Your task to perform on an android device: install app "Adobe Acrobat Reader" Image 0: 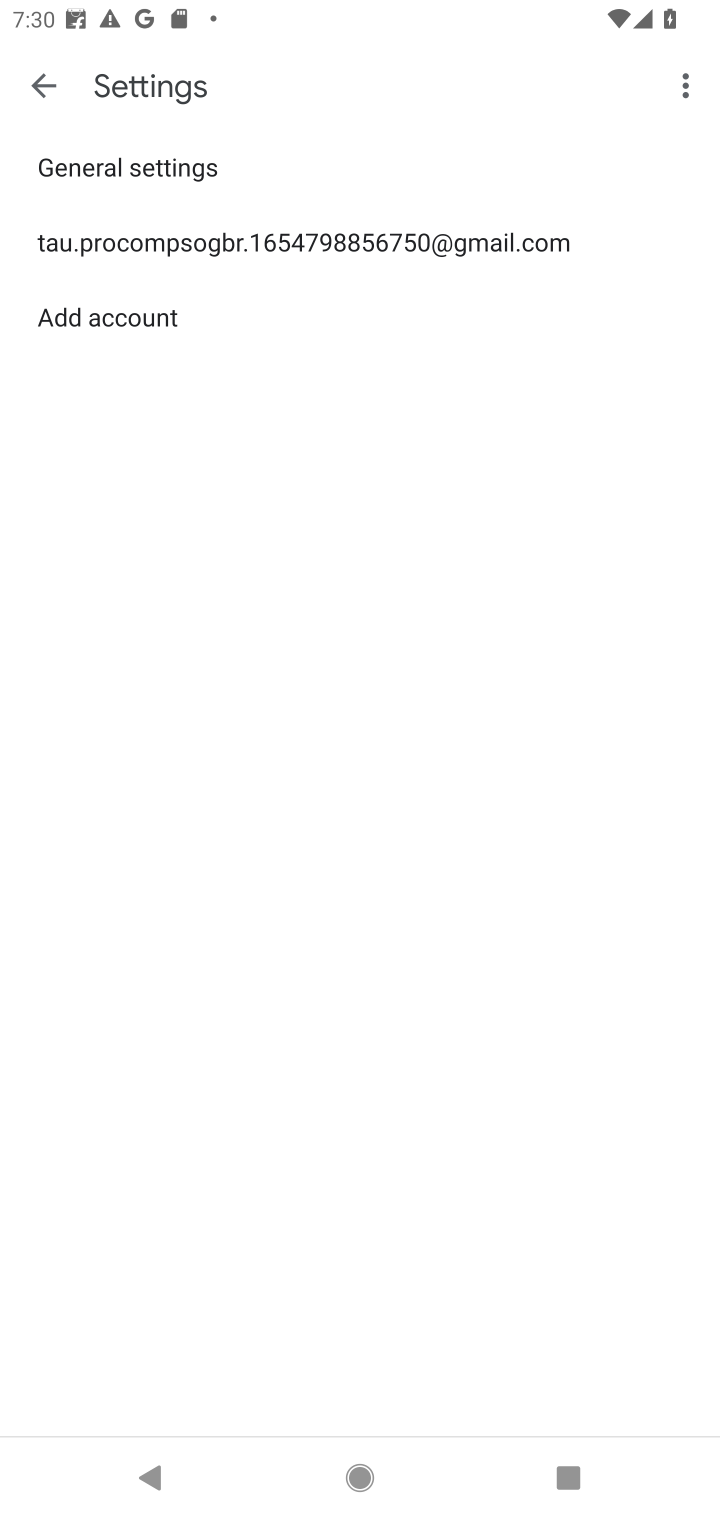
Step 0: press home button
Your task to perform on an android device: install app "Adobe Acrobat Reader" Image 1: 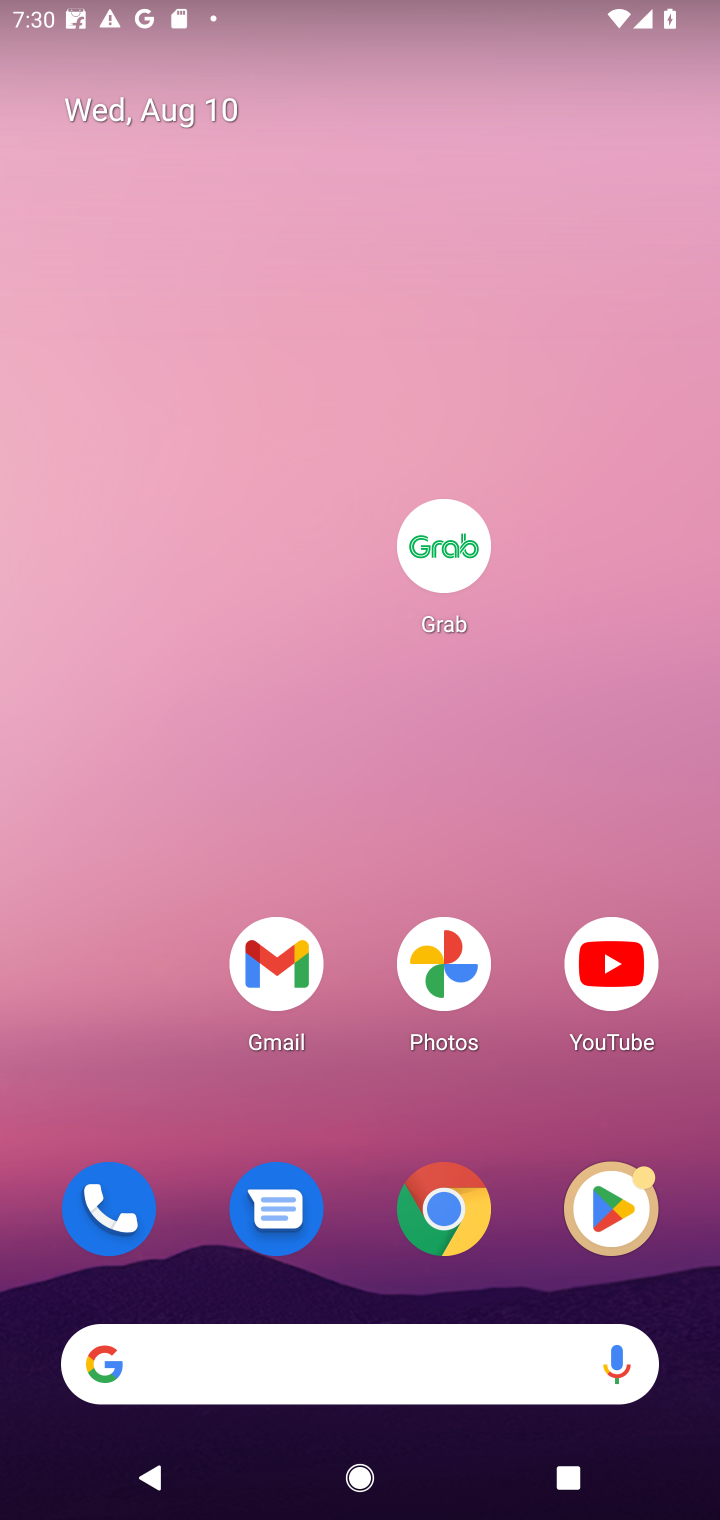
Step 1: drag from (363, 1307) to (368, 141)
Your task to perform on an android device: install app "Adobe Acrobat Reader" Image 2: 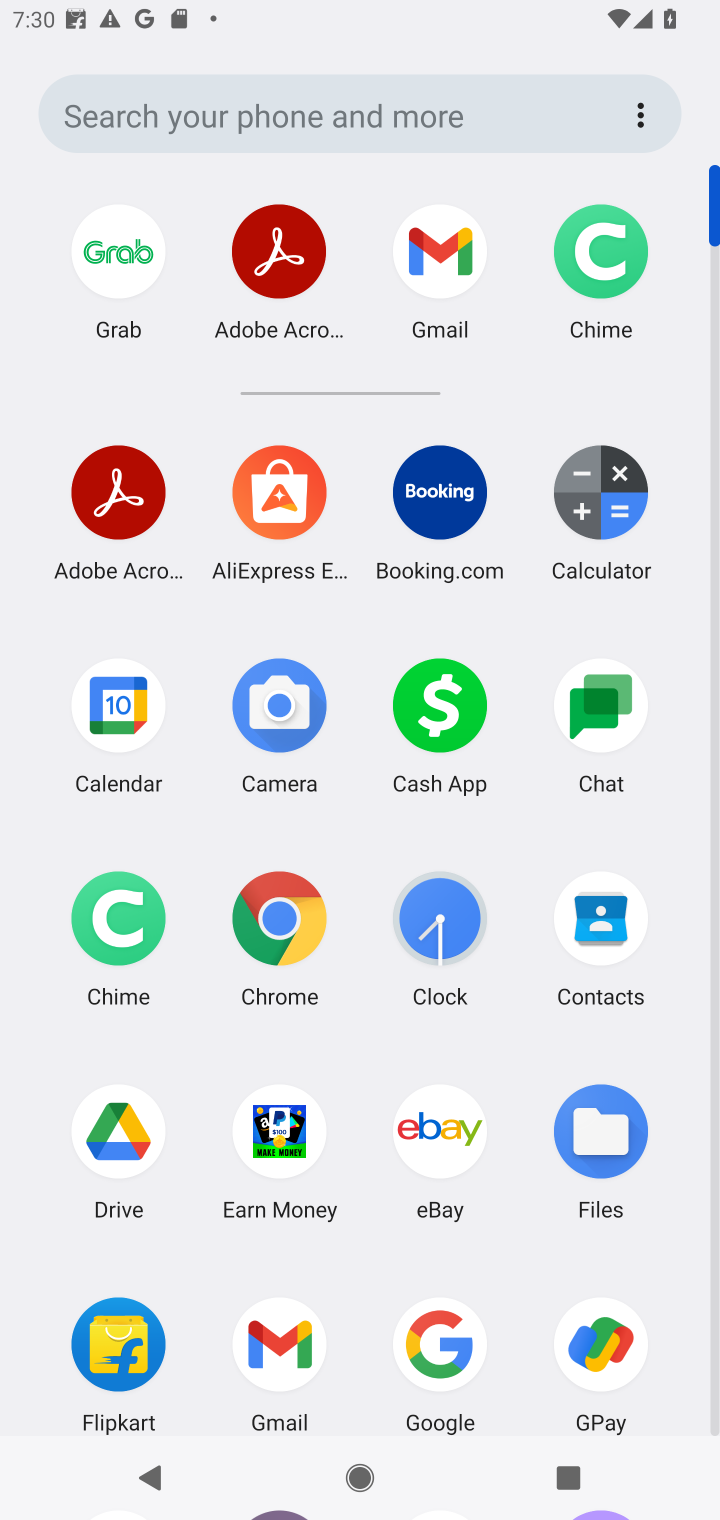
Step 2: click (92, 511)
Your task to perform on an android device: install app "Adobe Acrobat Reader" Image 3: 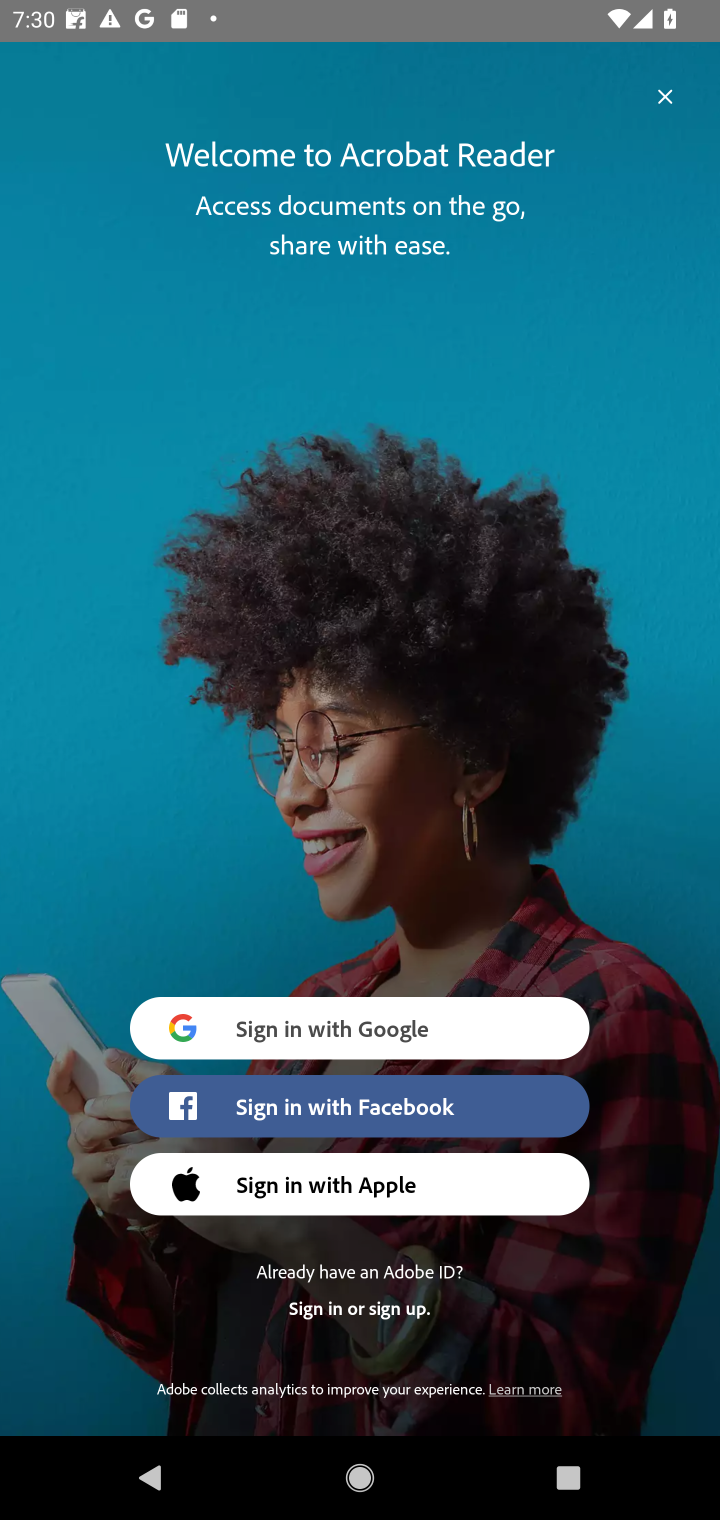
Step 3: task complete